Your task to perform on an android device: Open Chrome and go to settings Image 0: 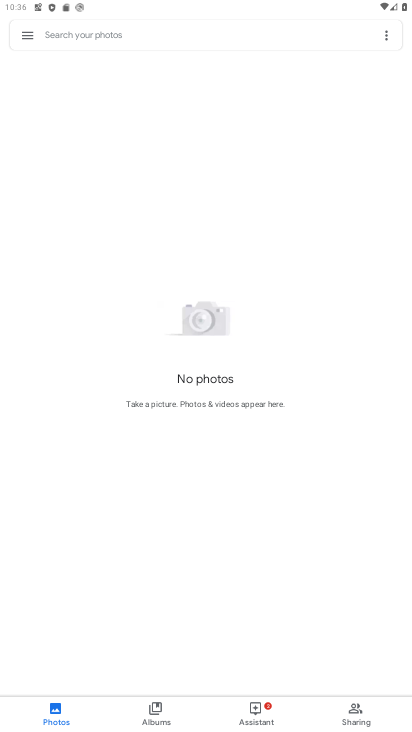
Step 0: press home button
Your task to perform on an android device: Open Chrome and go to settings Image 1: 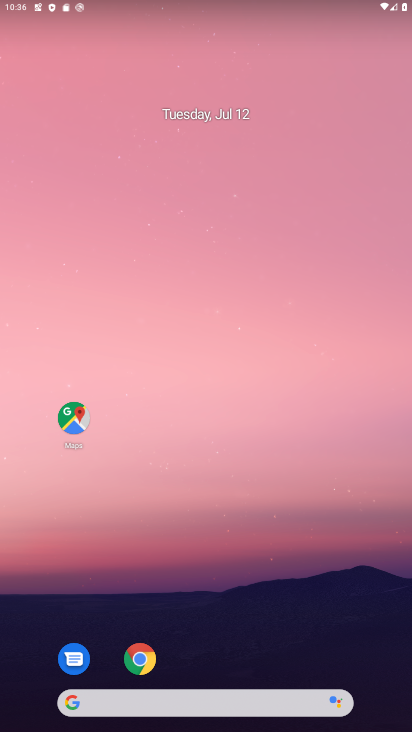
Step 1: drag from (389, 694) to (352, 189)
Your task to perform on an android device: Open Chrome and go to settings Image 2: 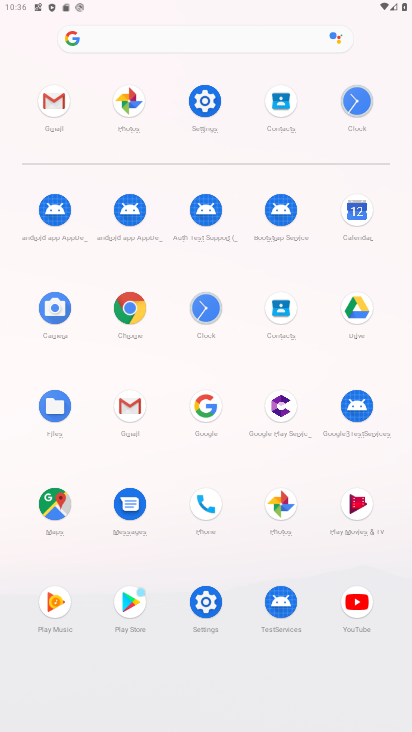
Step 2: click (131, 298)
Your task to perform on an android device: Open Chrome and go to settings Image 3: 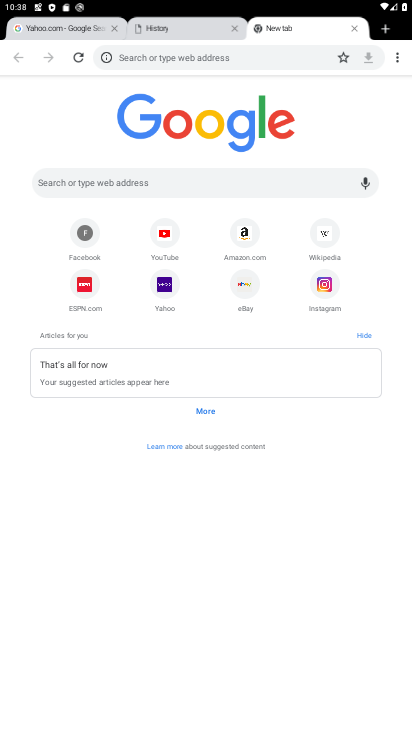
Step 3: click (396, 52)
Your task to perform on an android device: Open Chrome and go to settings Image 4: 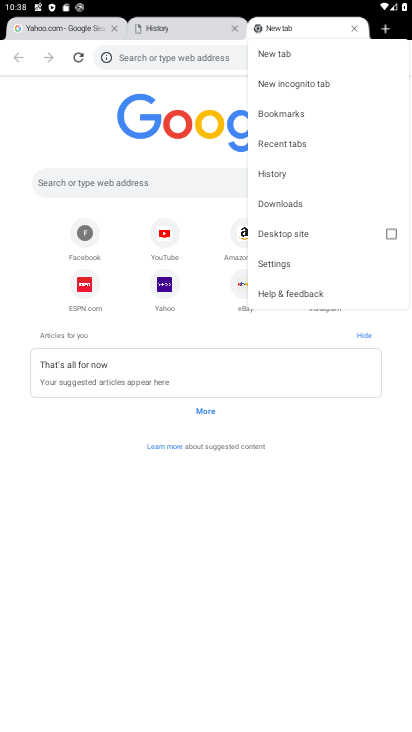
Step 4: click (279, 258)
Your task to perform on an android device: Open Chrome and go to settings Image 5: 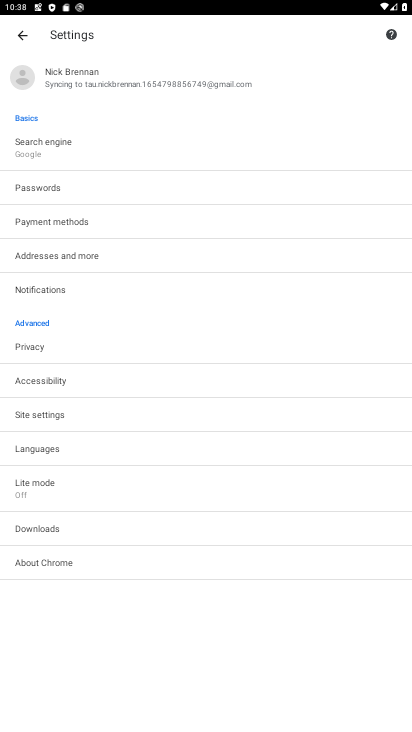
Step 5: task complete